Your task to perform on an android device: Open calendar and show me the third week of next month Image 0: 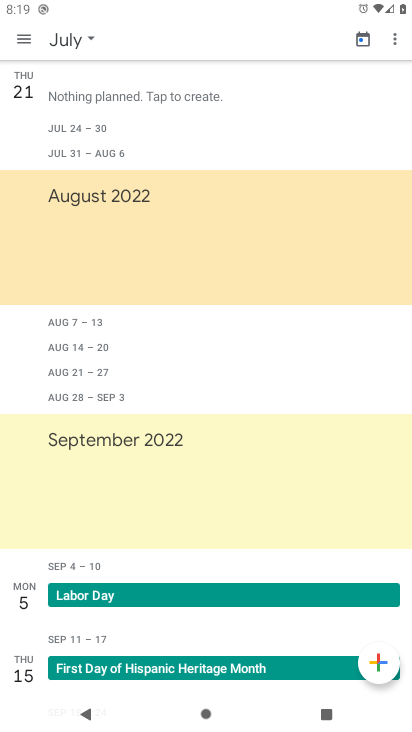
Step 0: press home button
Your task to perform on an android device: Open calendar and show me the third week of next month Image 1: 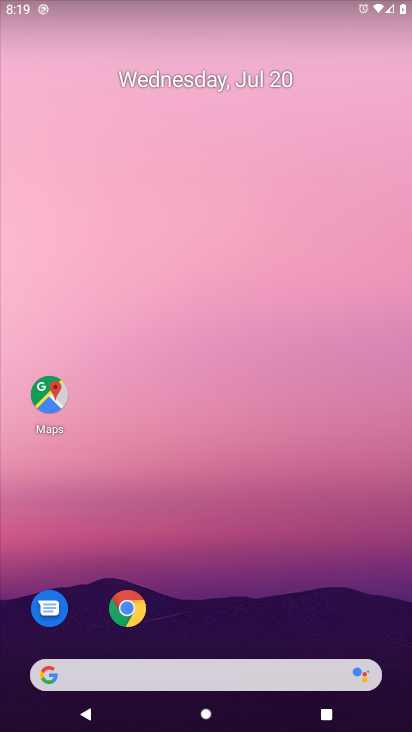
Step 1: drag from (186, 645) to (173, 267)
Your task to perform on an android device: Open calendar and show me the third week of next month Image 2: 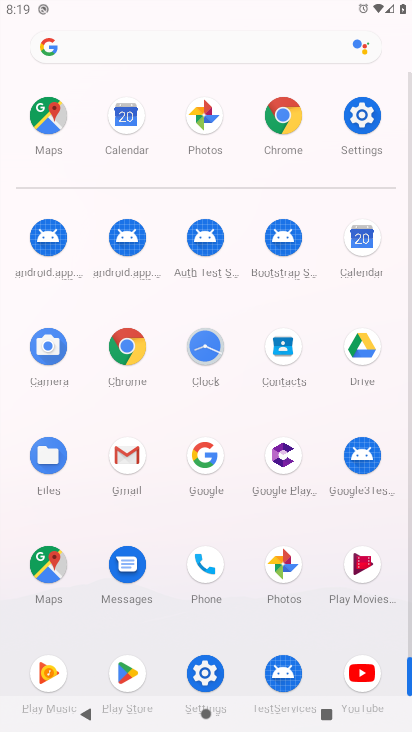
Step 2: click (354, 254)
Your task to perform on an android device: Open calendar and show me the third week of next month Image 3: 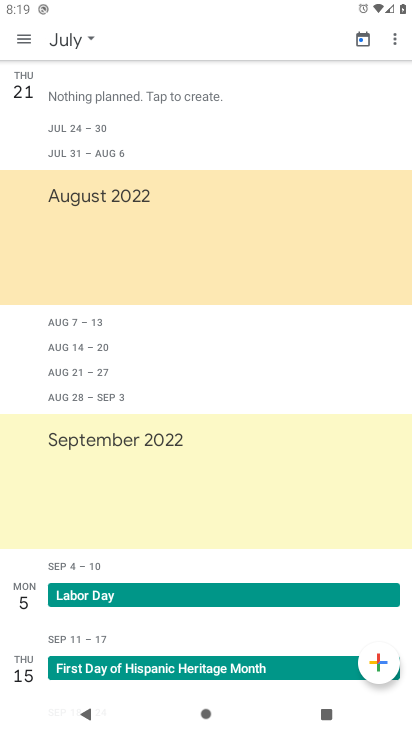
Step 3: drag from (113, 255) to (141, 71)
Your task to perform on an android device: Open calendar and show me the third week of next month Image 4: 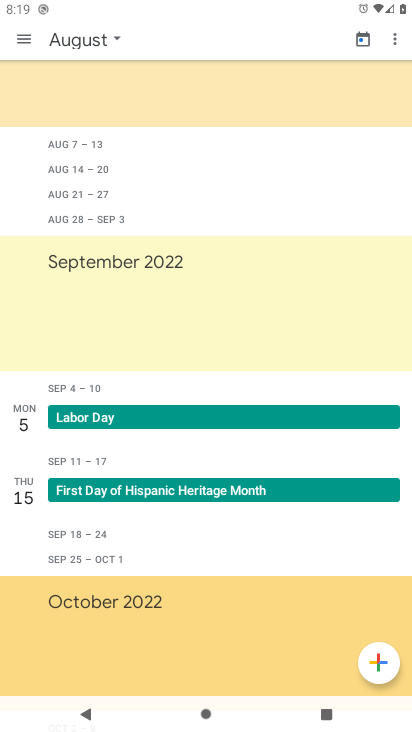
Step 4: click (10, 37)
Your task to perform on an android device: Open calendar and show me the third week of next month Image 5: 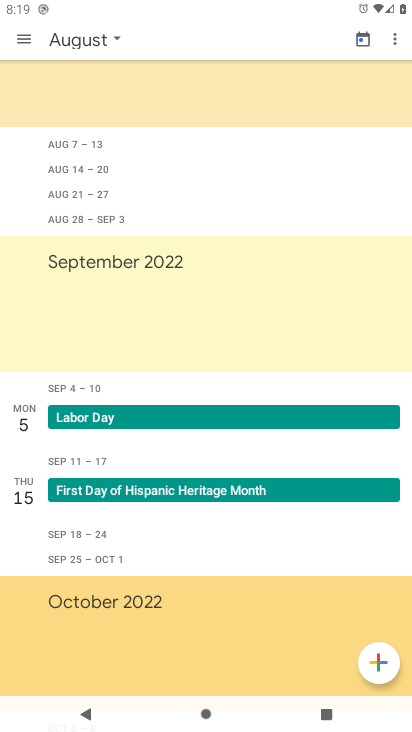
Step 5: click (23, 33)
Your task to perform on an android device: Open calendar and show me the third week of next month Image 6: 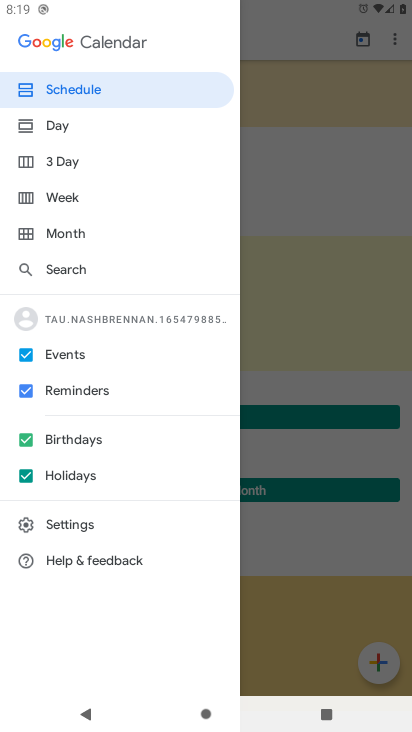
Step 6: click (65, 193)
Your task to perform on an android device: Open calendar and show me the third week of next month Image 7: 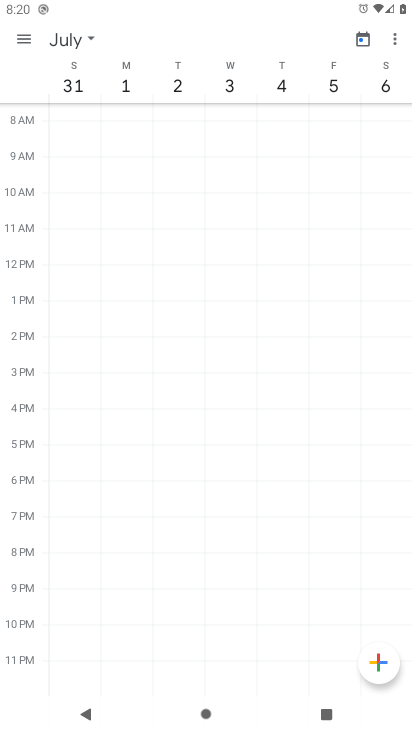
Step 7: task complete